Your task to perform on an android device: add a contact Image 0: 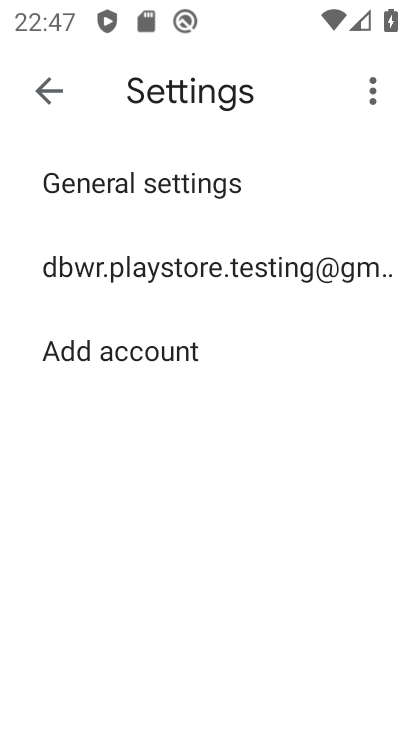
Step 0: press home button
Your task to perform on an android device: add a contact Image 1: 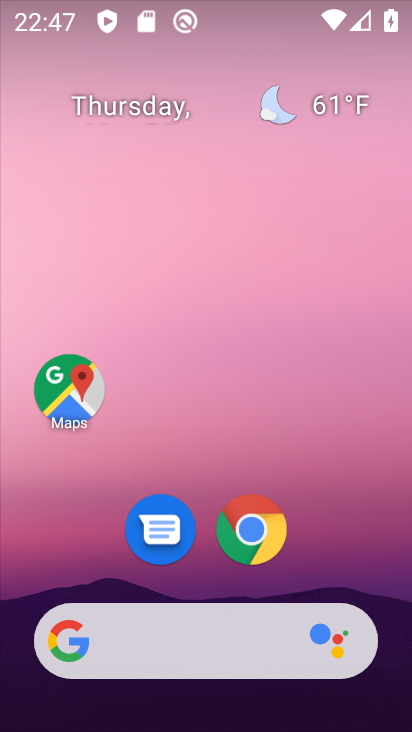
Step 1: drag from (356, 572) to (305, 142)
Your task to perform on an android device: add a contact Image 2: 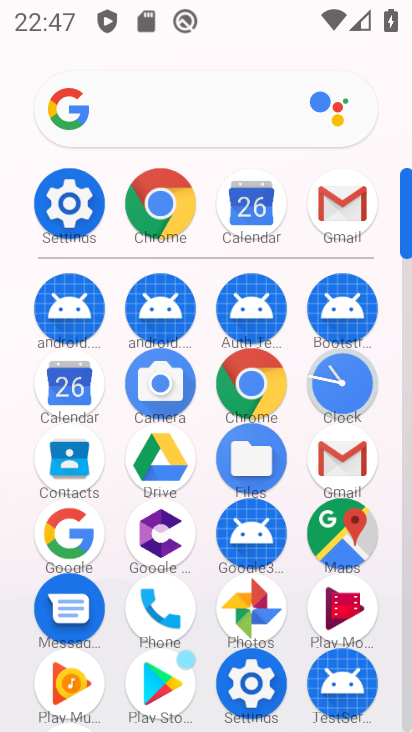
Step 2: click (78, 385)
Your task to perform on an android device: add a contact Image 3: 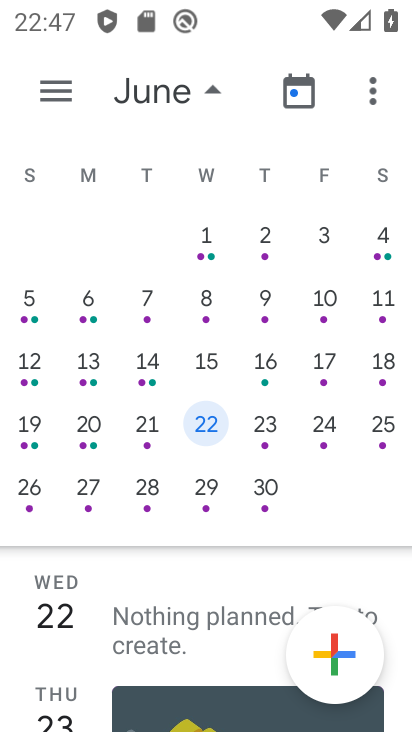
Step 3: press back button
Your task to perform on an android device: add a contact Image 4: 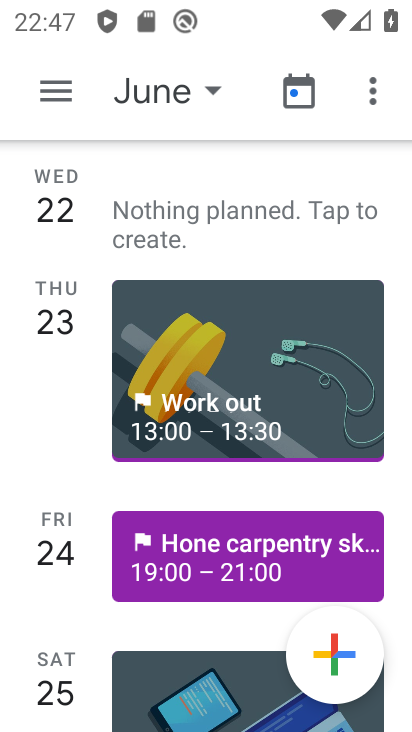
Step 4: press back button
Your task to perform on an android device: add a contact Image 5: 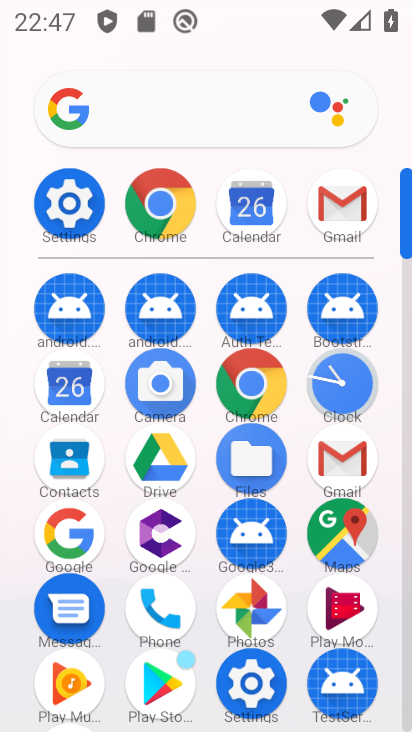
Step 5: click (69, 458)
Your task to perform on an android device: add a contact Image 6: 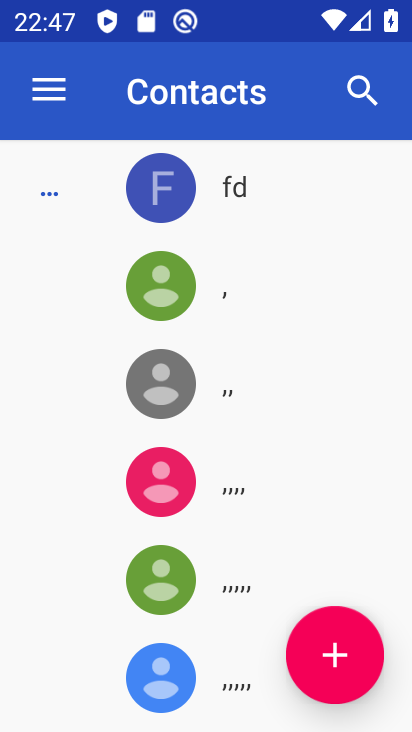
Step 6: click (326, 616)
Your task to perform on an android device: add a contact Image 7: 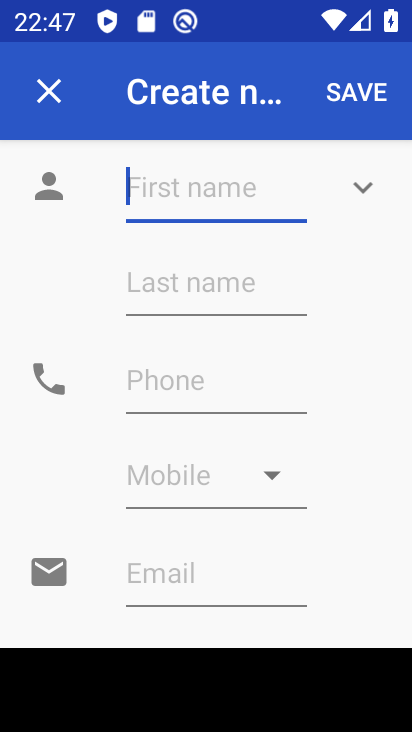
Step 7: click (353, 94)
Your task to perform on an android device: add a contact Image 8: 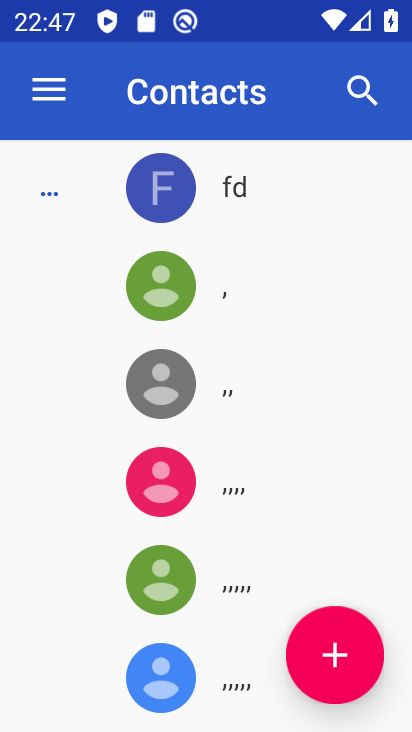
Step 8: click (330, 628)
Your task to perform on an android device: add a contact Image 9: 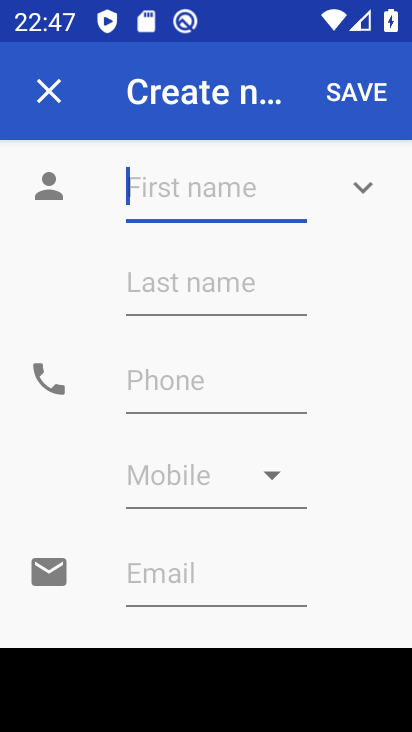
Step 9: click (216, 220)
Your task to perform on an android device: add a contact Image 10: 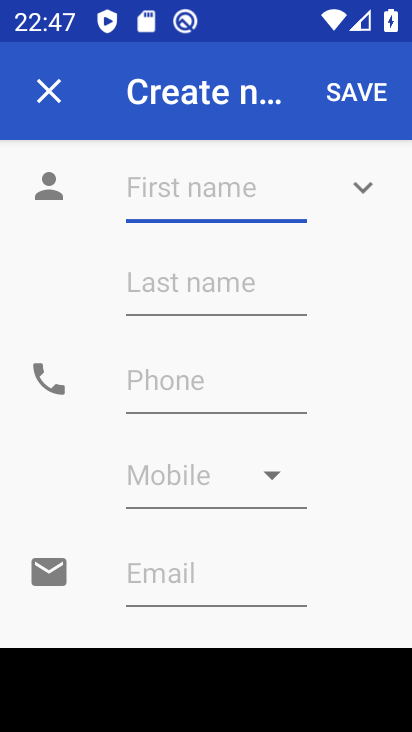
Step 10: type "fsdcss"
Your task to perform on an android device: add a contact Image 11: 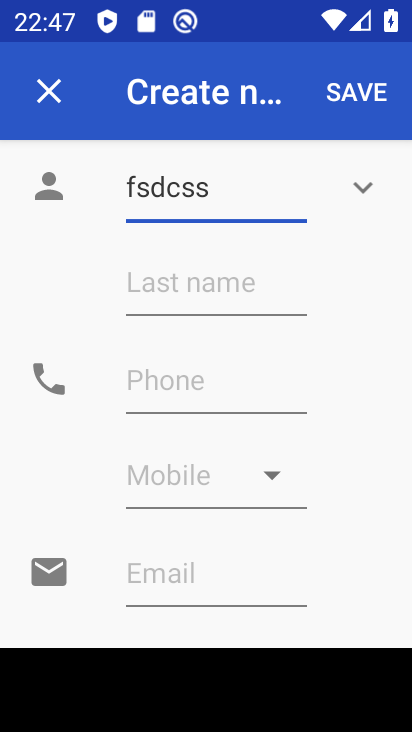
Step 11: click (349, 103)
Your task to perform on an android device: add a contact Image 12: 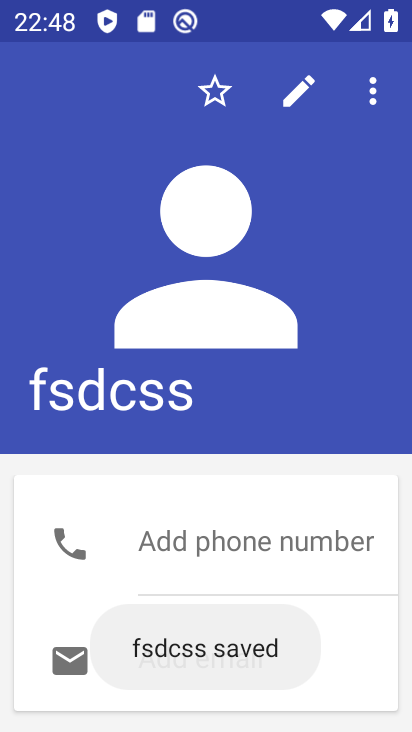
Step 12: task complete